Your task to perform on an android device: see tabs open on other devices in the chrome app Image 0: 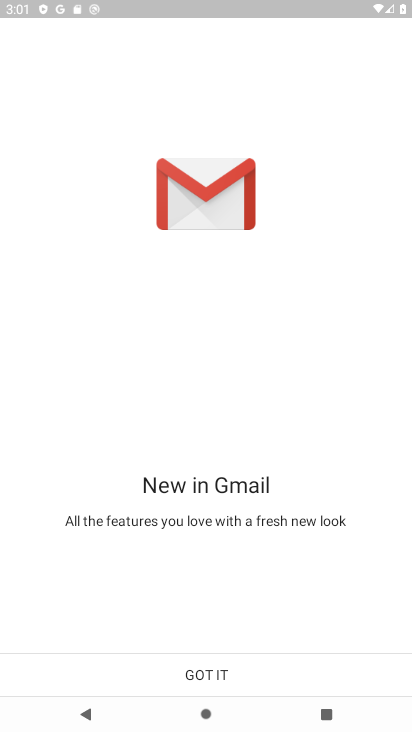
Step 0: task complete